Your task to perform on an android device: uninstall "PlayWell" Image 0: 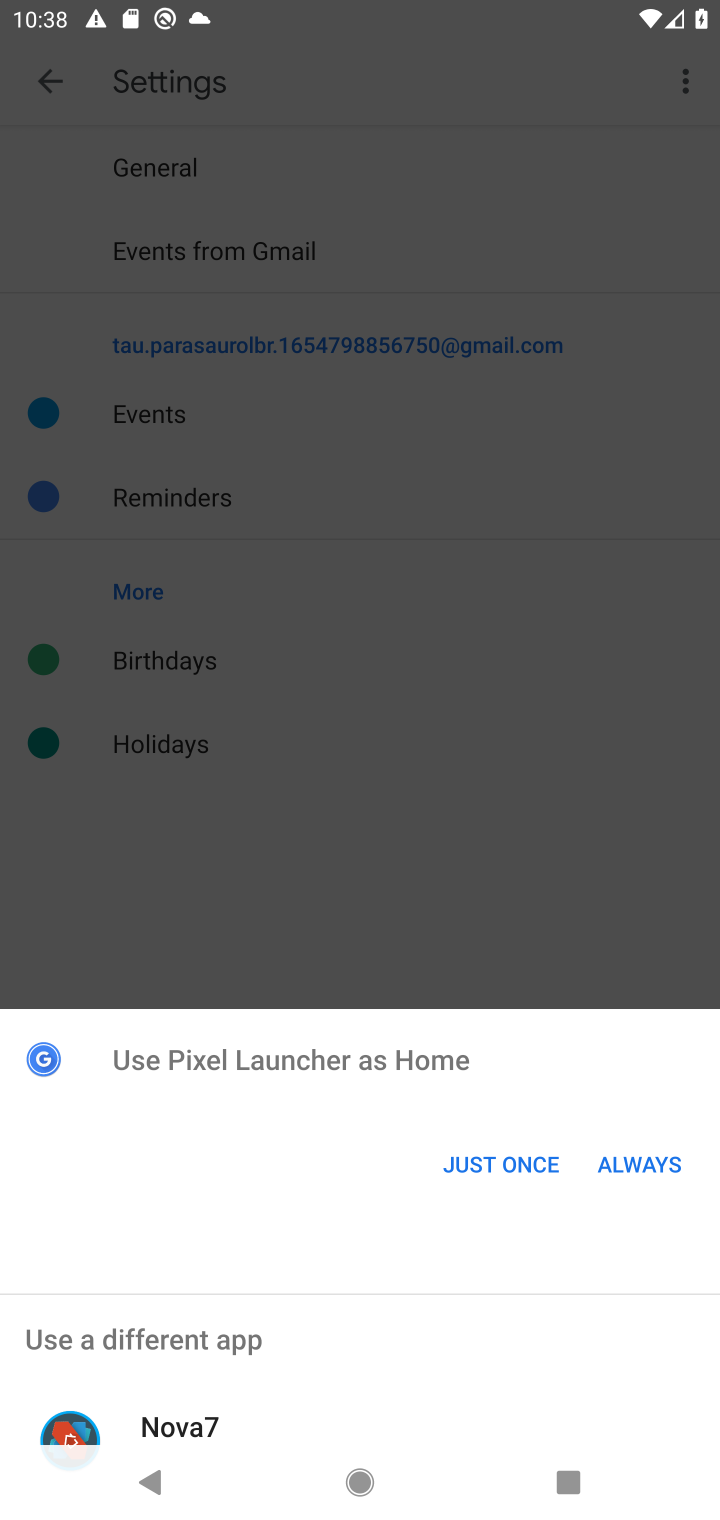
Step 0: drag from (431, 1360) to (432, 1066)
Your task to perform on an android device: uninstall "PlayWell" Image 1: 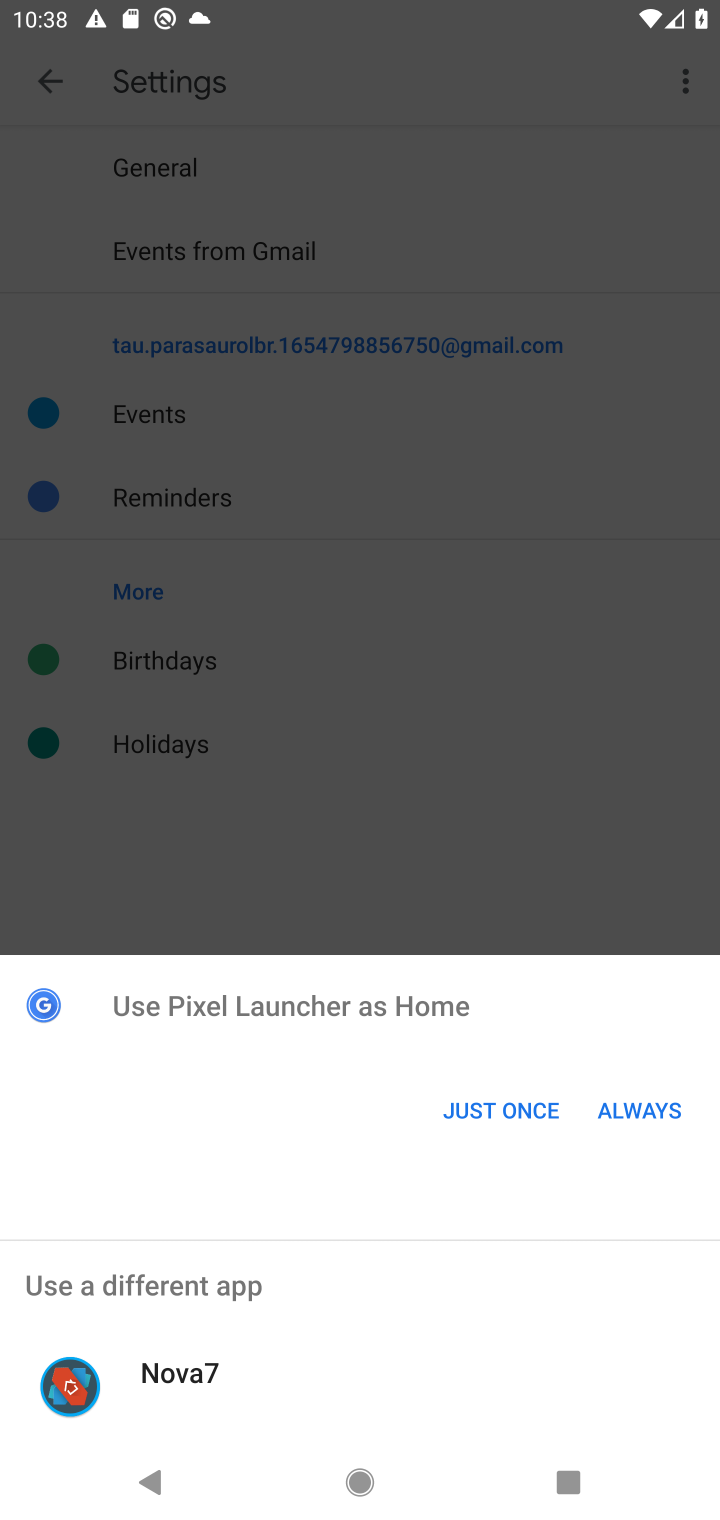
Step 1: click (625, 1116)
Your task to perform on an android device: uninstall "PlayWell" Image 2: 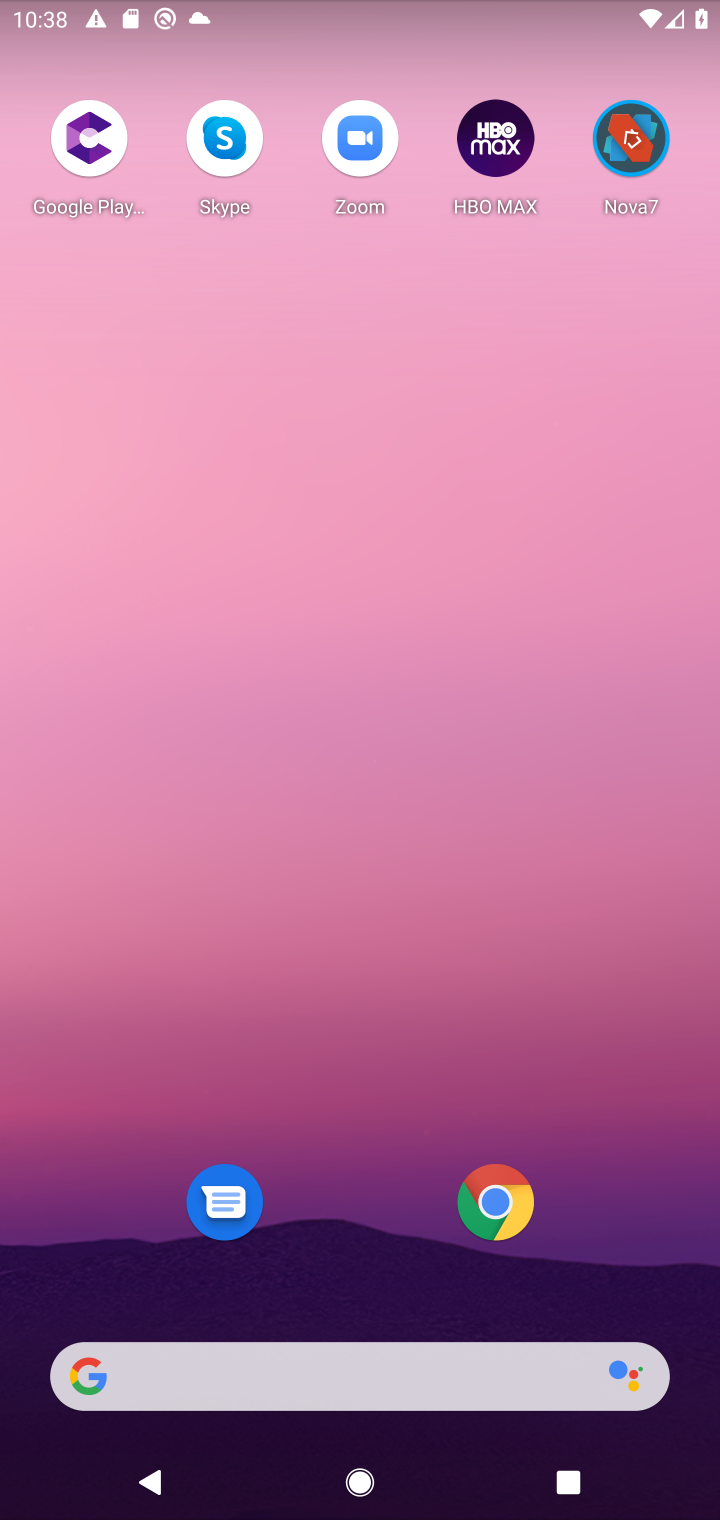
Step 2: click (452, 1352)
Your task to perform on an android device: uninstall "PlayWell" Image 3: 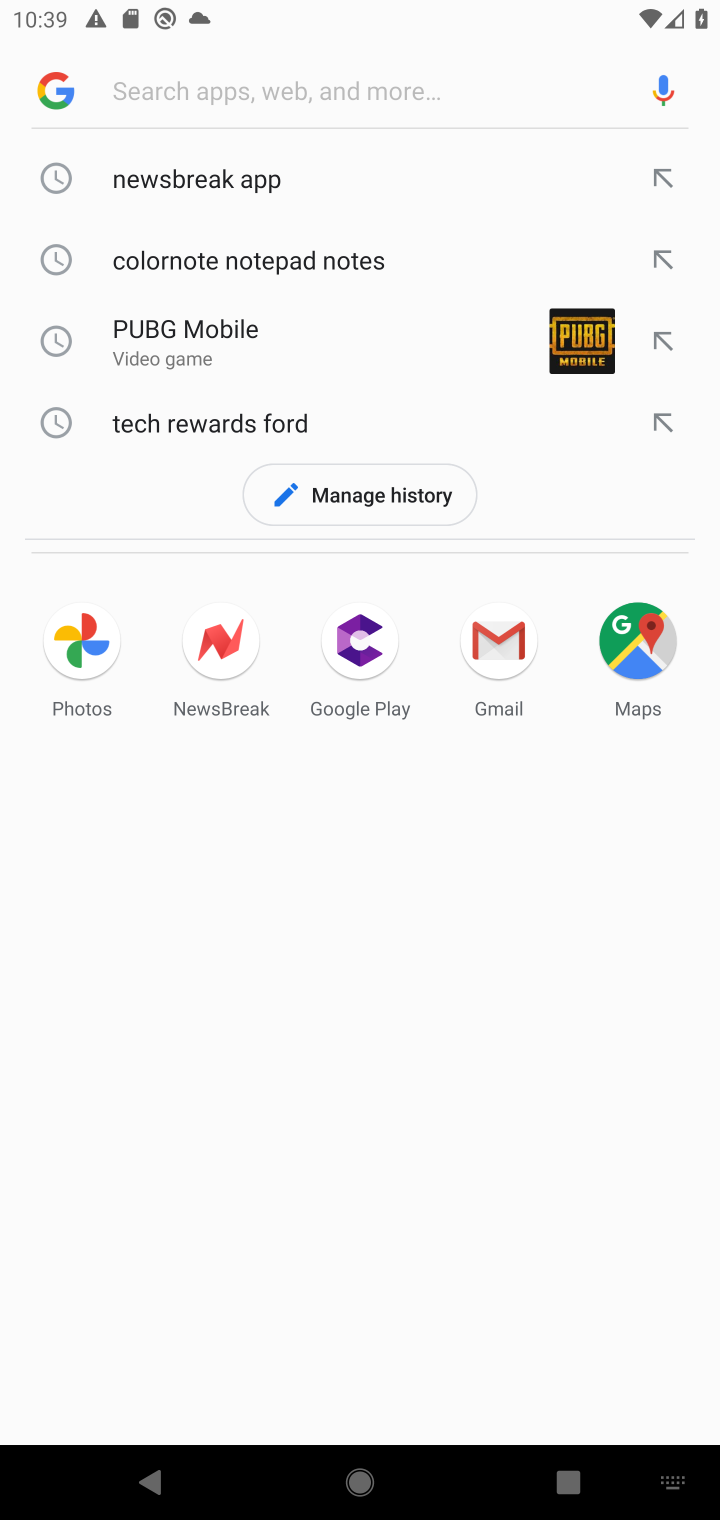
Step 3: type "playwell"
Your task to perform on an android device: uninstall "PlayWell" Image 4: 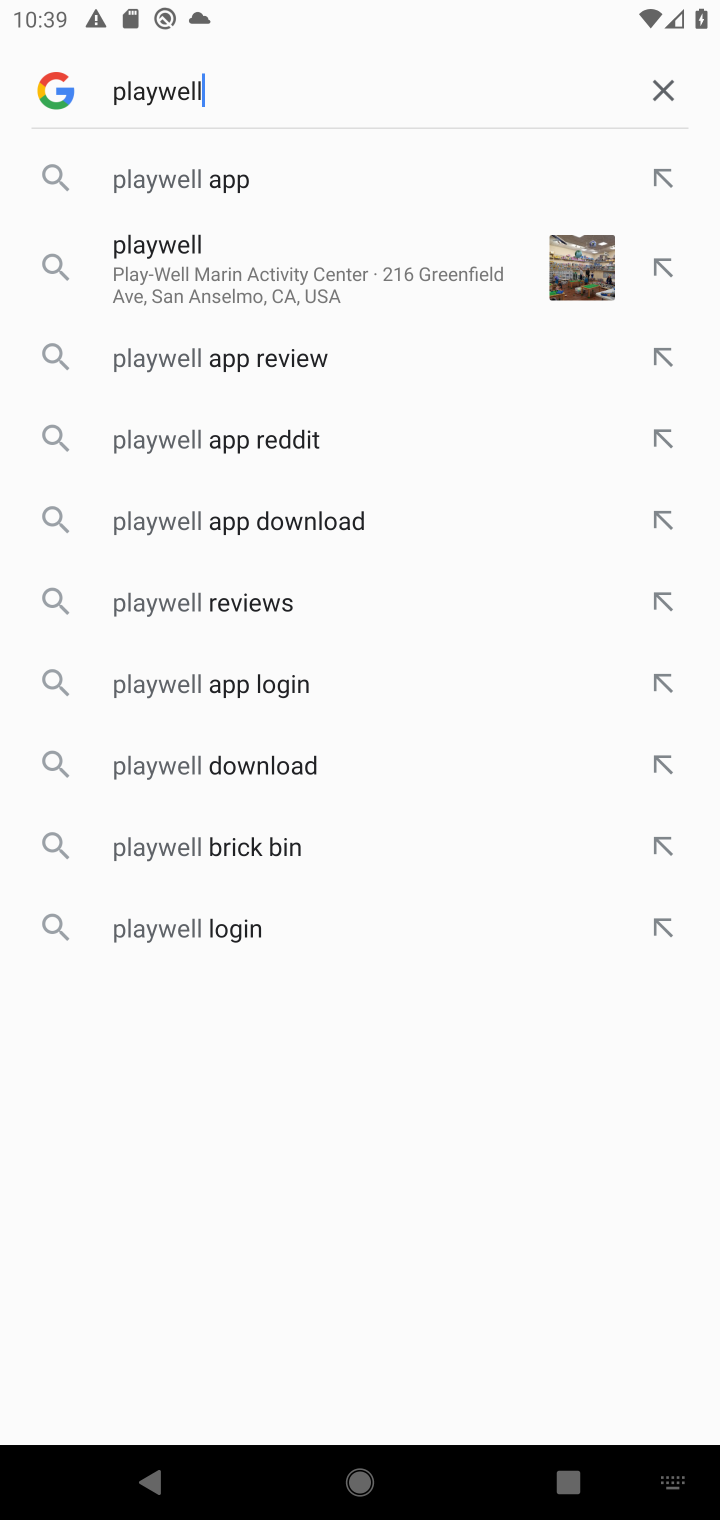
Step 4: click (224, 194)
Your task to perform on an android device: uninstall "PlayWell" Image 5: 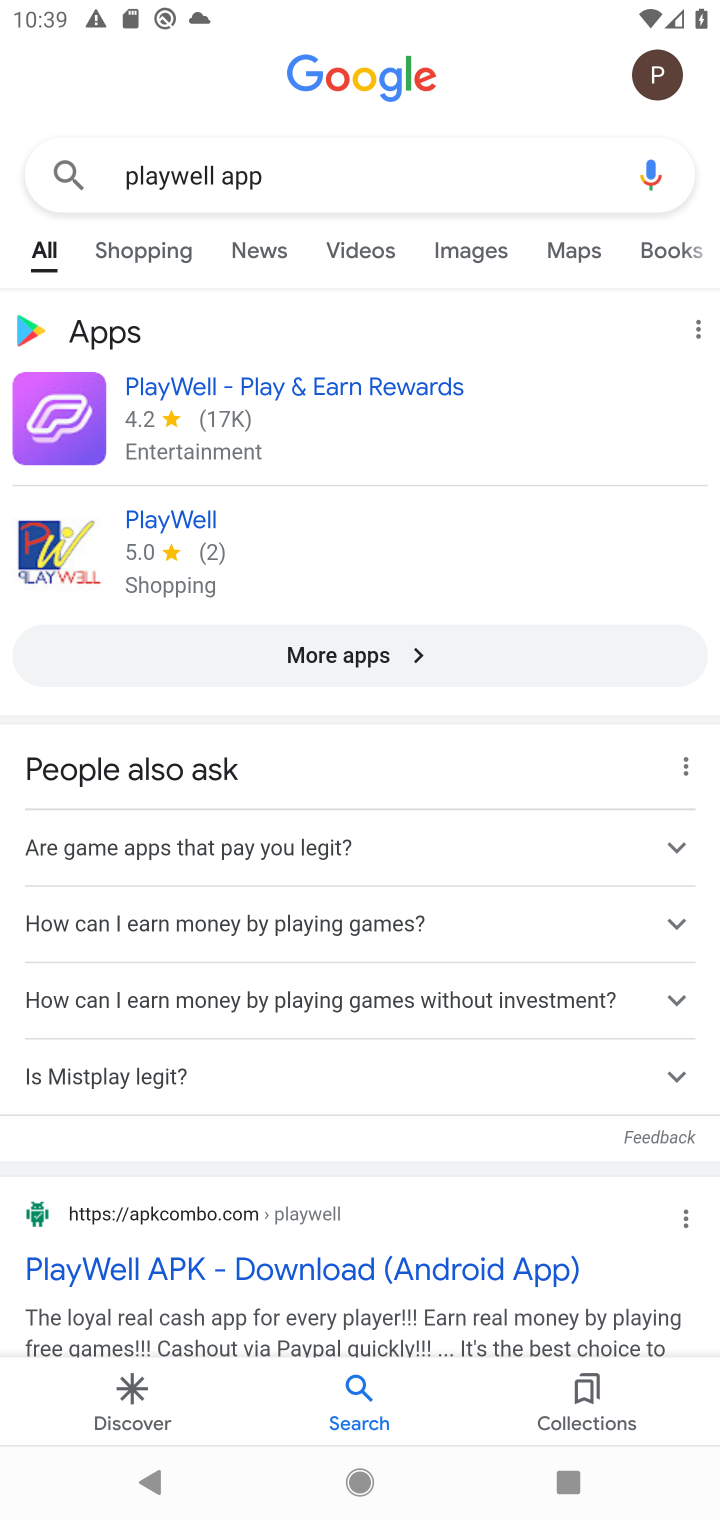
Step 5: click (456, 439)
Your task to perform on an android device: uninstall "PlayWell" Image 6: 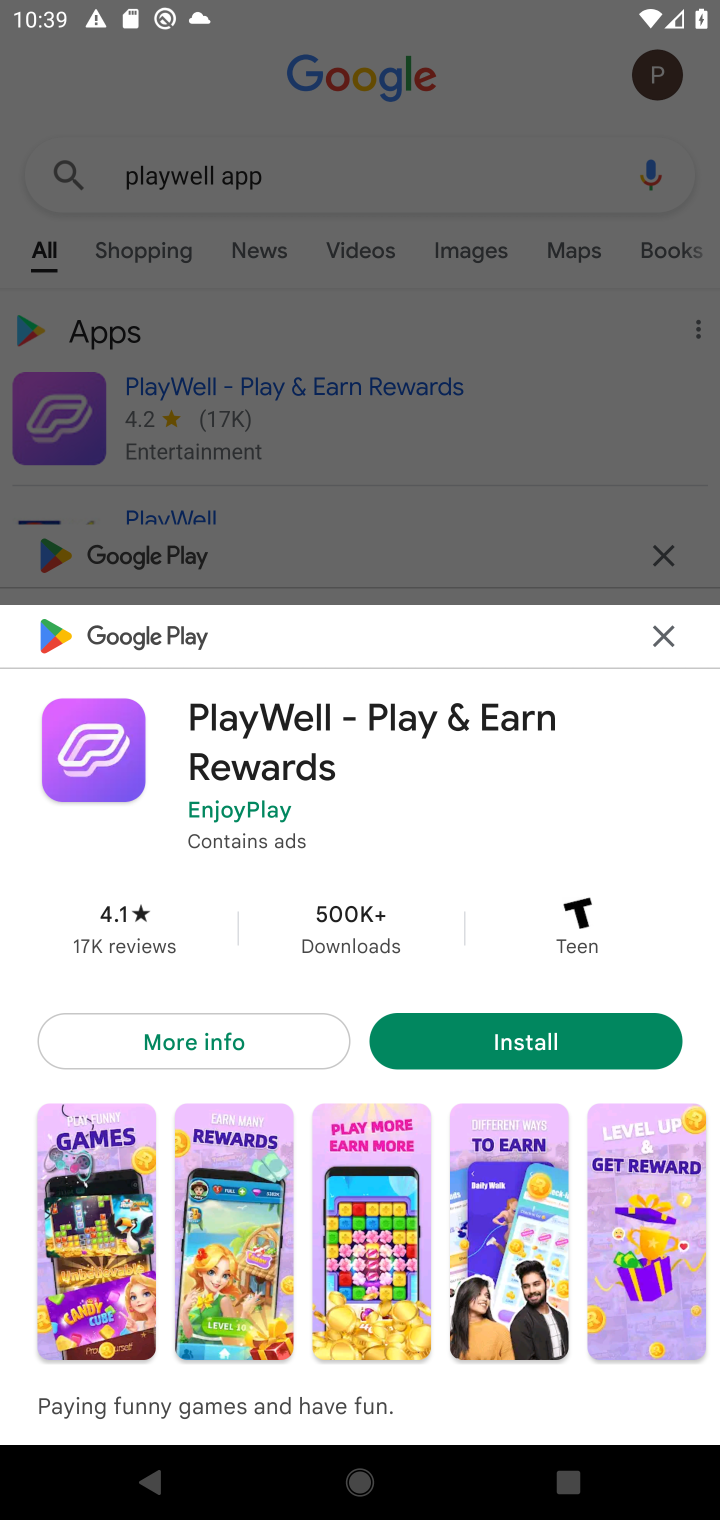
Step 6: click (562, 1024)
Your task to perform on an android device: uninstall "PlayWell" Image 7: 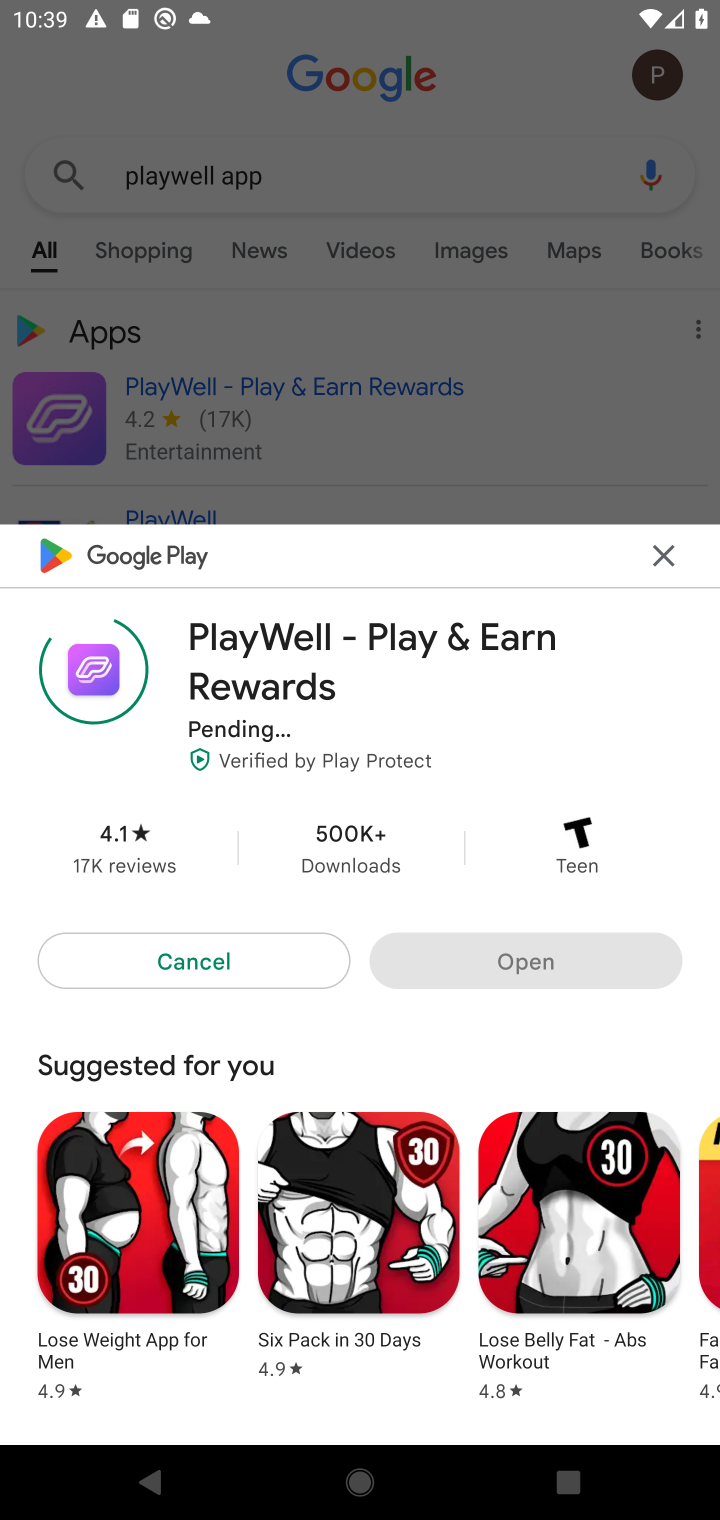
Step 7: task complete